Your task to perform on an android device: remove spam from my inbox in the gmail app Image 0: 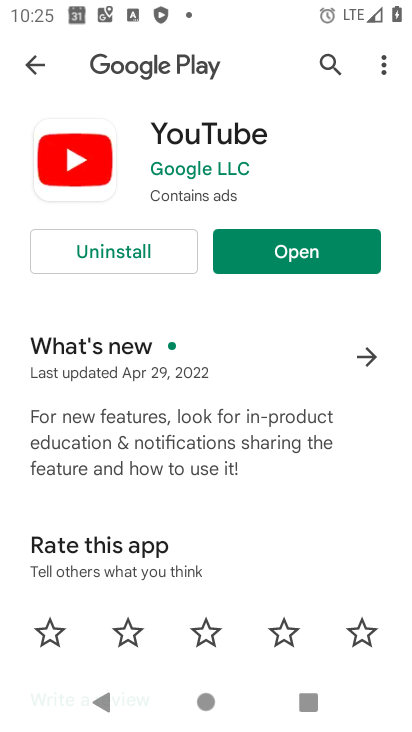
Step 0: press home button
Your task to perform on an android device: remove spam from my inbox in the gmail app Image 1: 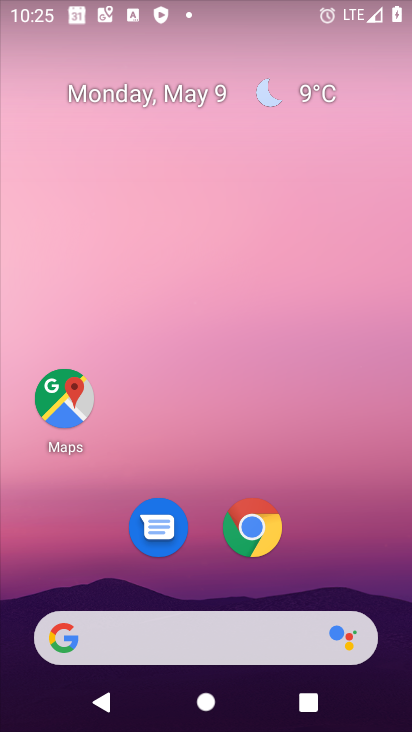
Step 1: drag from (371, 602) to (333, 75)
Your task to perform on an android device: remove spam from my inbox in the gmail app Image 2: 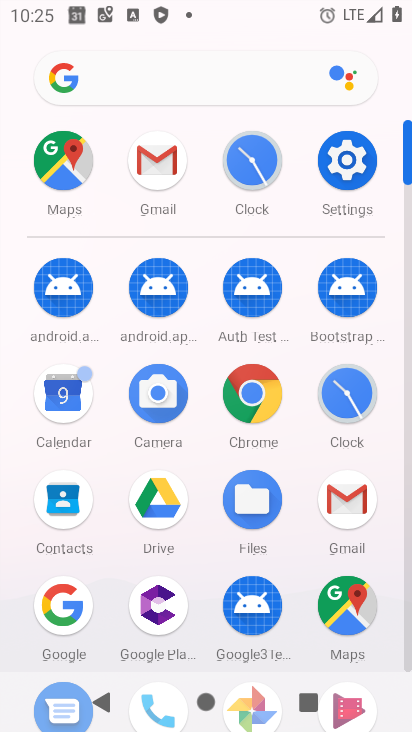
Step 2: click (410, 647)
Your task to perform on an android device: remove spam from my inbox in the gmail app Image 3: 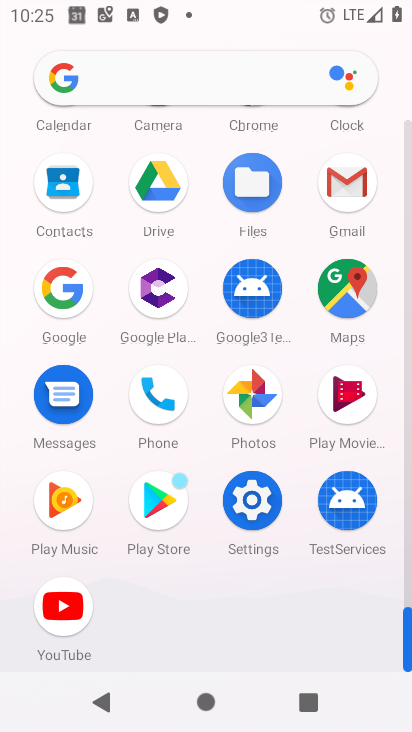
Step 3: click (343, 182)
Your task to perform on an android device: remove spam from my inbox in the gmail app Image 4: 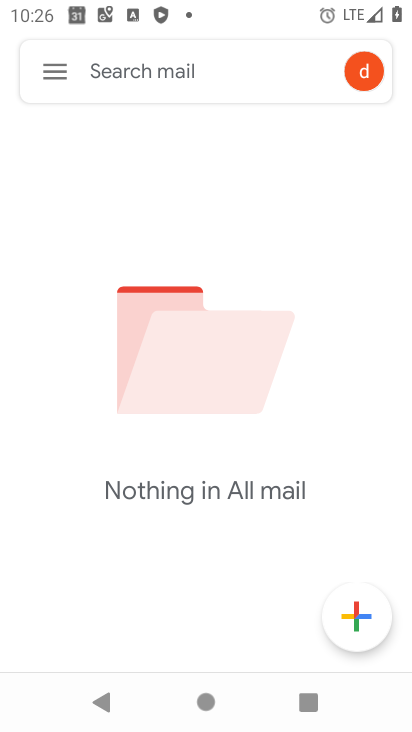
Step 4: click (46, 73)
Your task to perform on an android device: remove spam from my inbox in the gmail app Image 5: 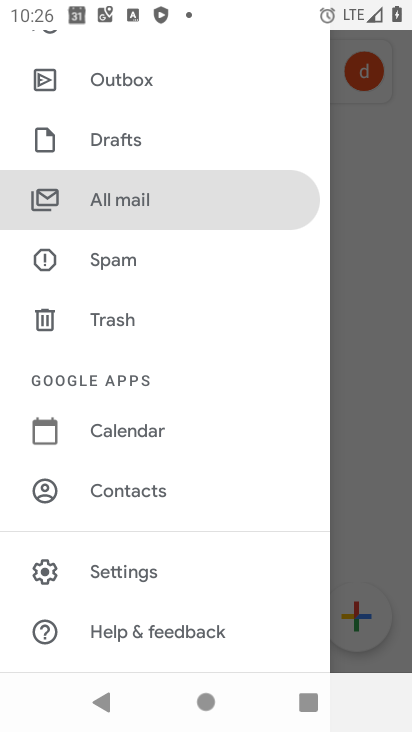
Step 5: click (107, 256)
Your task to perform on an android device: remove spam from my inbox in the gmail app Image 6: 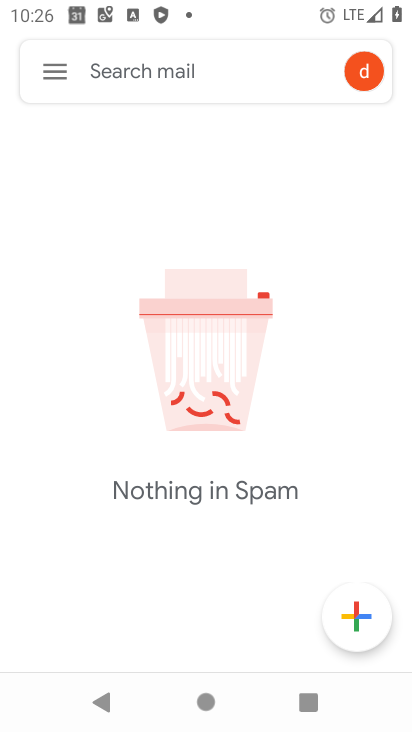
Step 6: task complete